Your task to perform on an android device: toggle data saver in the chrome app Image 0: 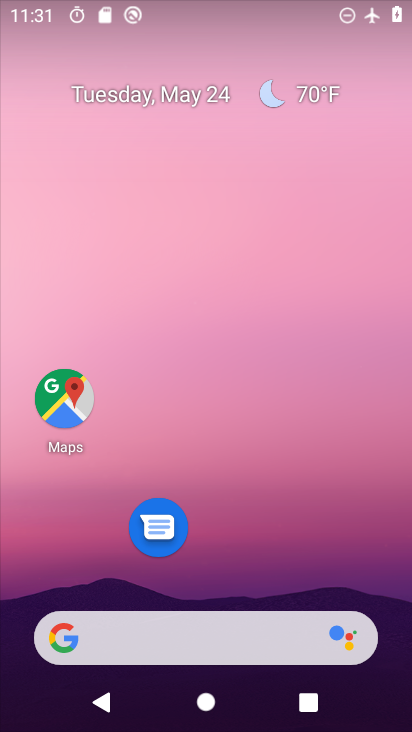
Step 0: drag from (251, 533) to (217, 17)
Your task to perform on an android device: toggle data saver in the chrome app Image 1: 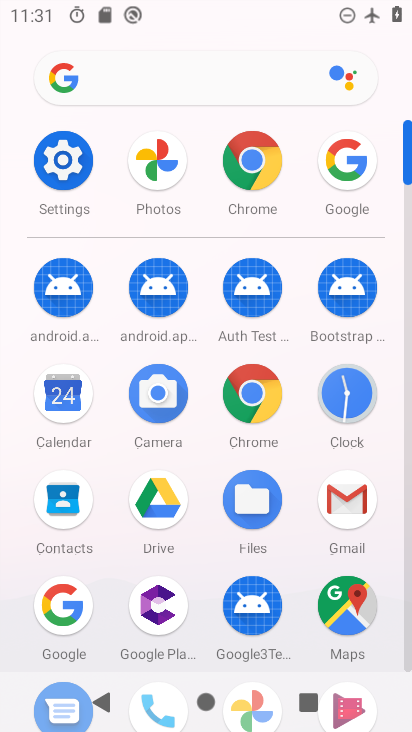
Step 1: click (254, 170)
Your task to perform on an android device: toggle data saver in the chrome app Image 2: 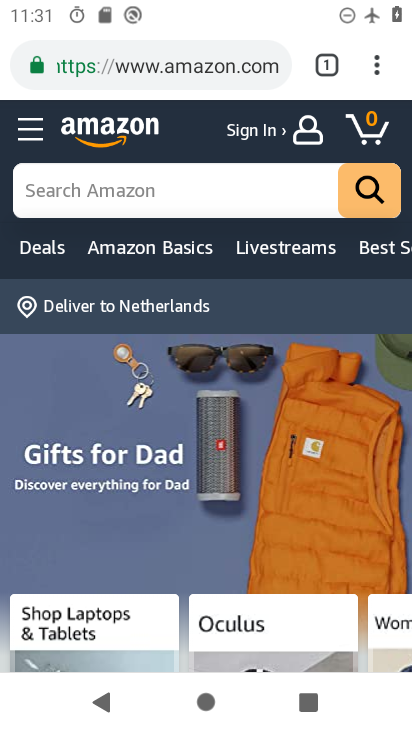
Step 2: click (369, 69)
Your task to perform on an android device: toggle data saver in the chrome app Image 3: 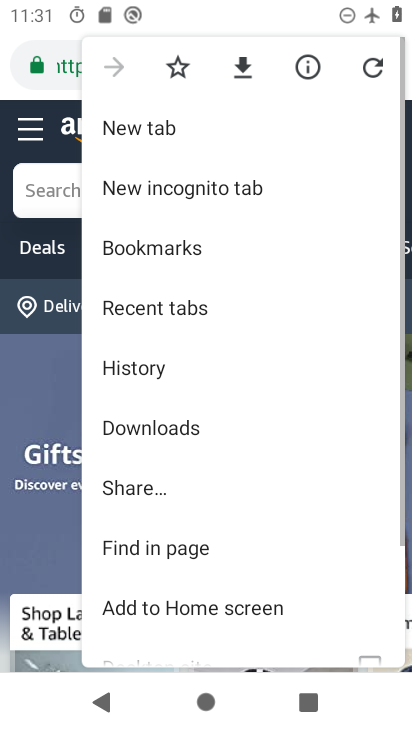
Step 3: drag from (223, 559) to (265, 118)
Your task to perform on an android device: toggle data saver in the chrome app Image 4: 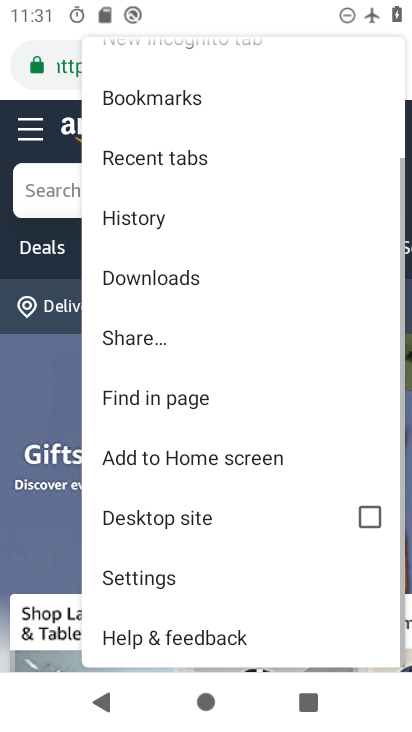
Step 4: click (166, 564)
Your task to perform on an android device: toggle data saver in the chrome app Image 5: 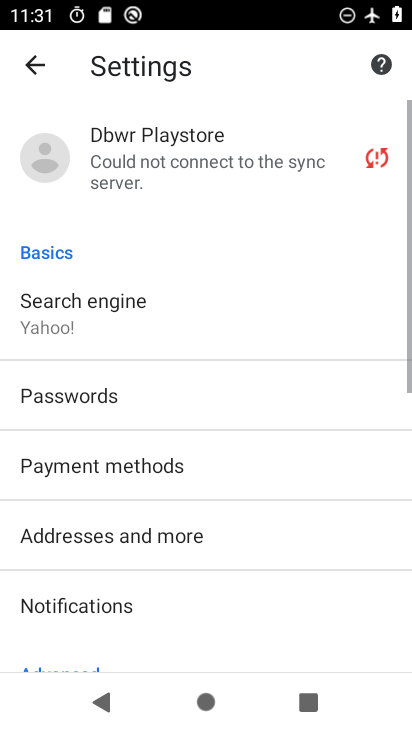
Step 5: drag from (231, 586) to (267, 170)
Your task to perform on an android device: toggle data saver in the chrome app Image 6: 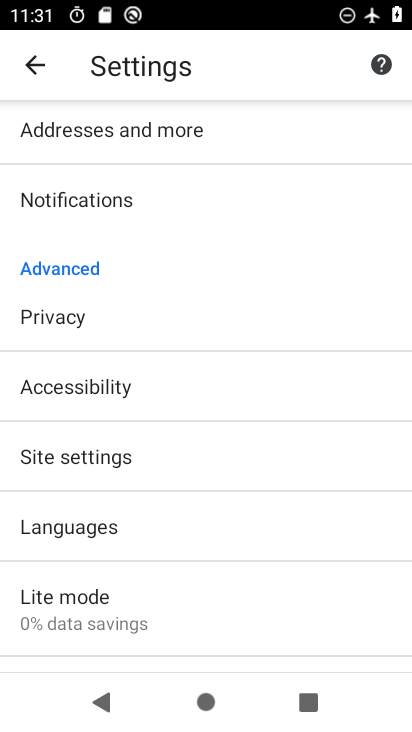
Step 6: click (115, 611)
Your task to perform on an android device: toggle data saver in the chrome app Image 7: 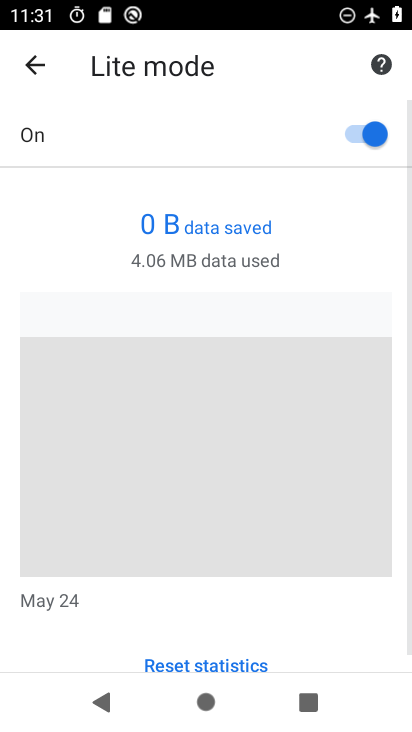
Step 7: click (362, 139)
Your task to perform on an android device: toggle data saver in the chrome app Image 8: 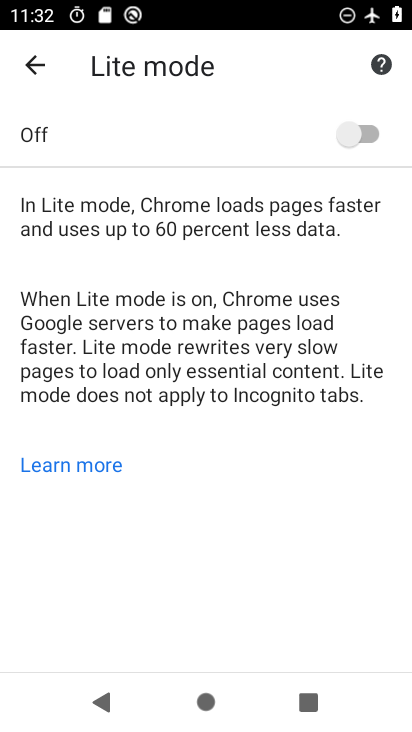
Step 8: task complete